Your task to perform on an android device: turn on the 24-hour format for clock Image 0: 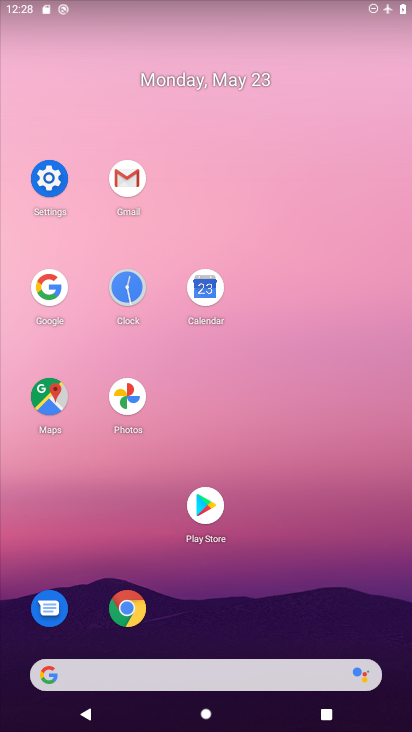
Step 0: click (124, 283)
Your task to perform on an android device: turn on the 24-hour format for clock Image 1: 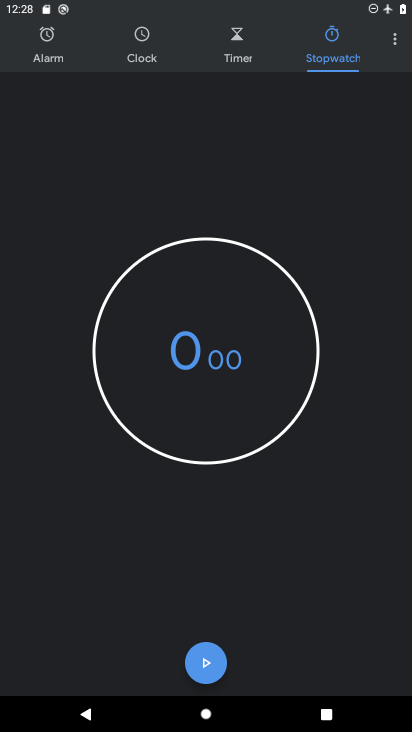
Step 1: click (396, 37)
Your task to perform on an android device: turn on the 24-hour format for clock Image 2: 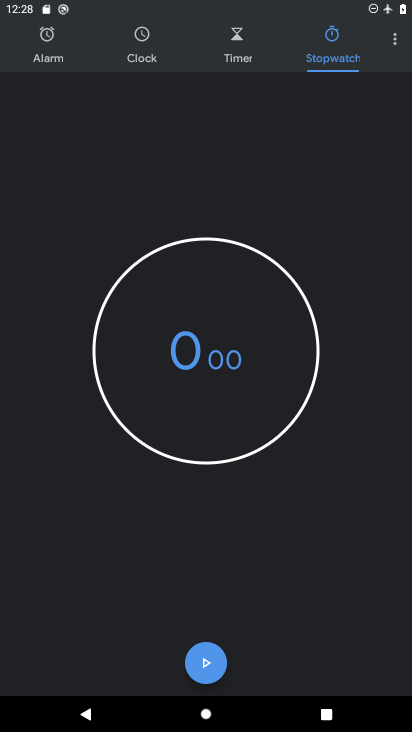
Step 2: click (396, 44)
Your task to perform on an android device: turn on the 24-hour format for clock Image 3: 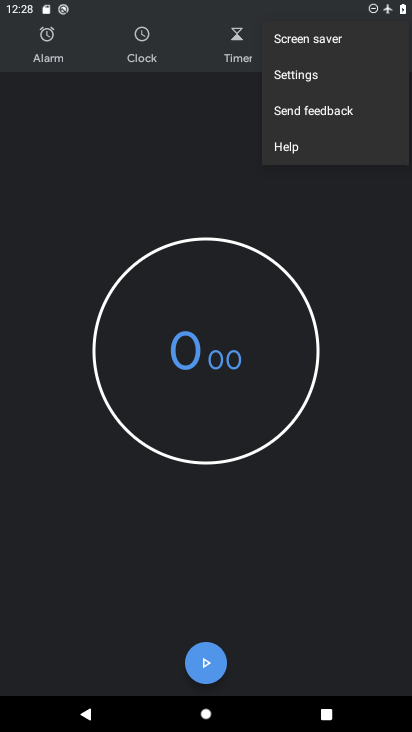
Step 3: click (316, 75)
Your task to perform on an android device: turn on the 24-hour format for clock Image 4: 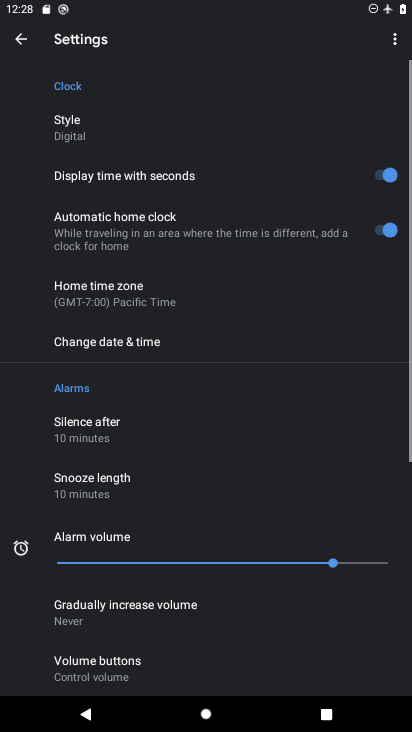
Step 4: click (299, 74)
Your task to perform on an android device: turn on the 24-hour format for clock Image 5: 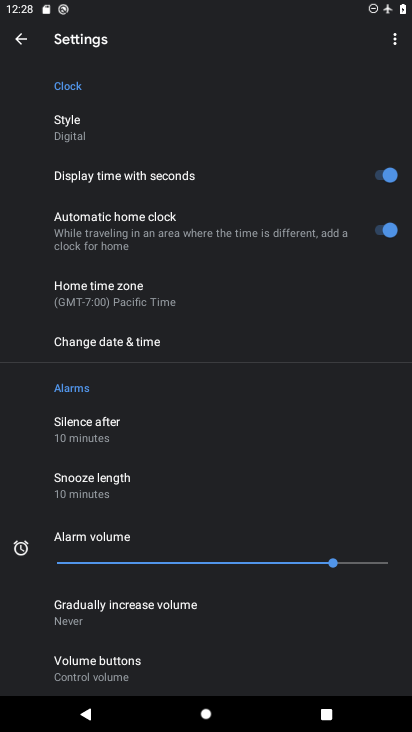
Step 5: click (181, 342)
Your task to perform on an android device: turn on the 24-hour format for clock Image 6: 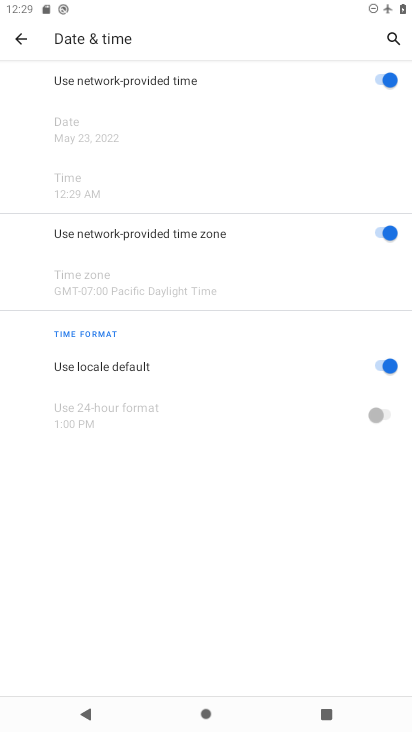
Step 6: click (198, 358)
Your task to perform on an android device: turn on the 24-hour format for clock Image 7: 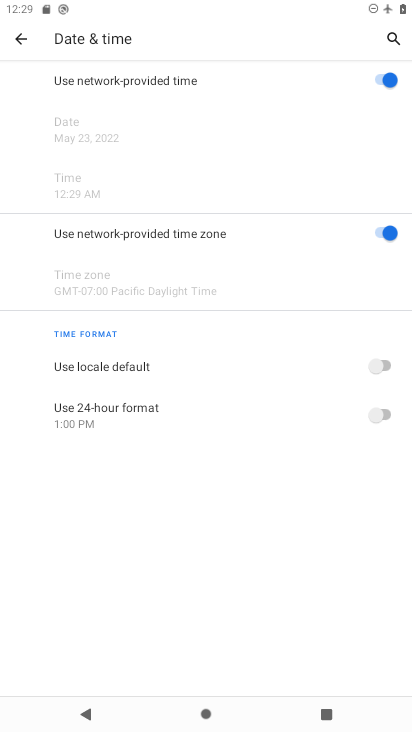
Step 7: click (376, 421)
Your task to perform on an android device: turn on the 24-hour format for clock Image 8: 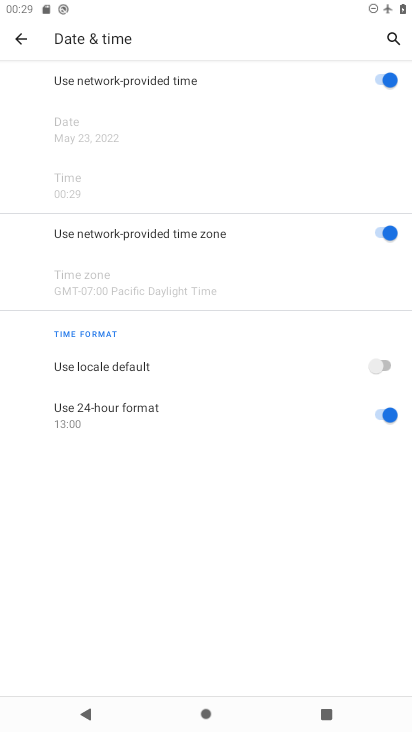
Step 8: task complete